Your task to perform on an android device: turn smart compose on in the gmail app Image 0: 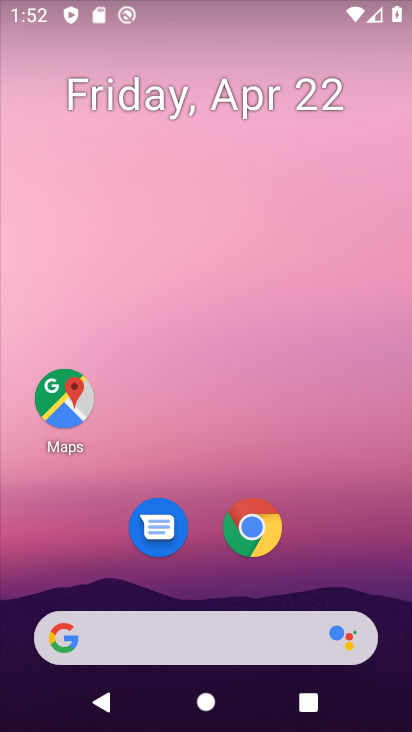
Step 0: drag from (338, 557) to (359, 107)
Your task to perform on an android device: turn smart compose on in the gmail app Image 1: 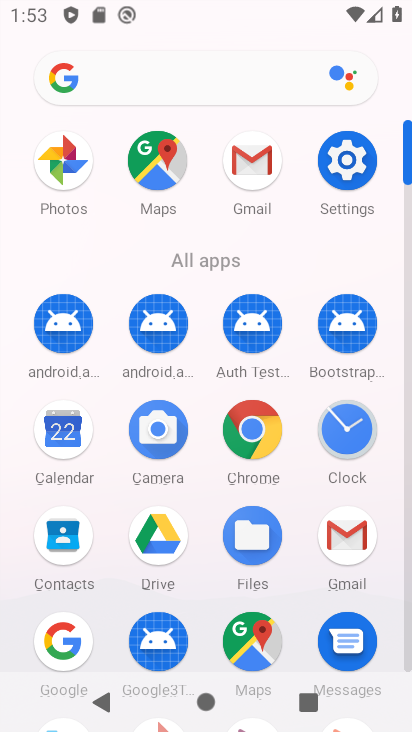
Step 1: drag from (304, 292) to (322, 23)
Your task to perform on an android device: turn smart compose on in the gmail app Image 2: 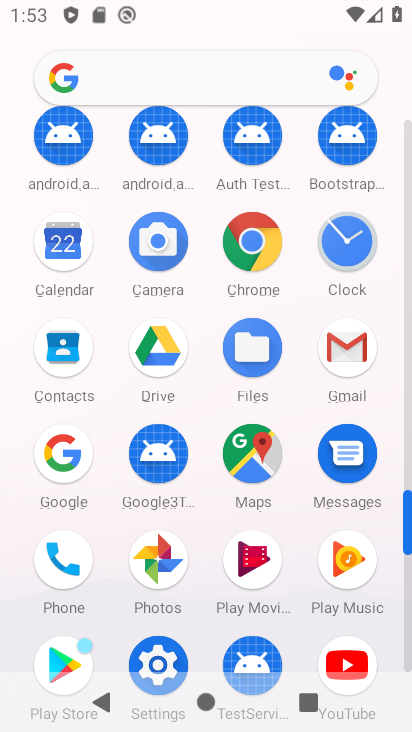
Step 2: click (353, 346)
Your task to perform on an android device: turn smart compose on in the gmail app Image 3: 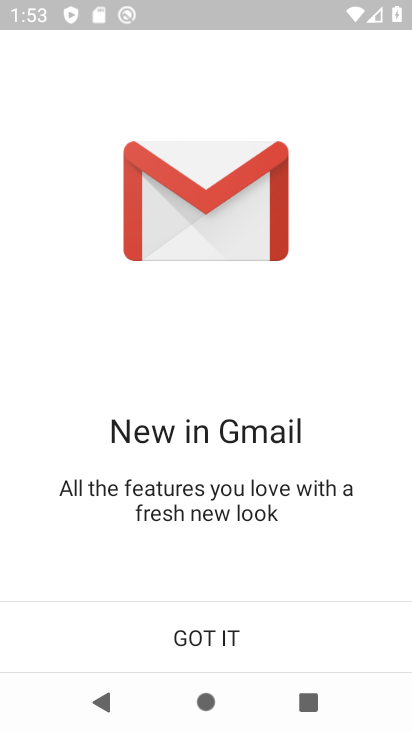
Step 3: click (200, 634)
Your task to perform on an android device: turn smart compose on in the gmail app Image 4: 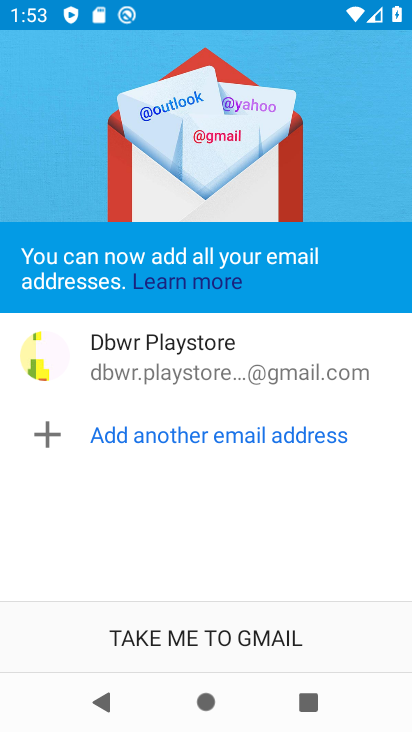
Step 4: click (219, 627)
Your task to perform on an android device: turn smart compose on in the gmail app Image 5: 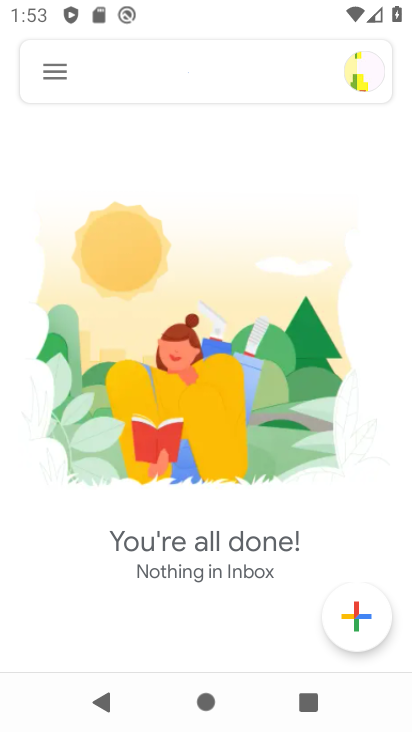
Step 5: click (43, 69)
Your task to perform on an android device: turn smart compose on in the gmail app Image 6: 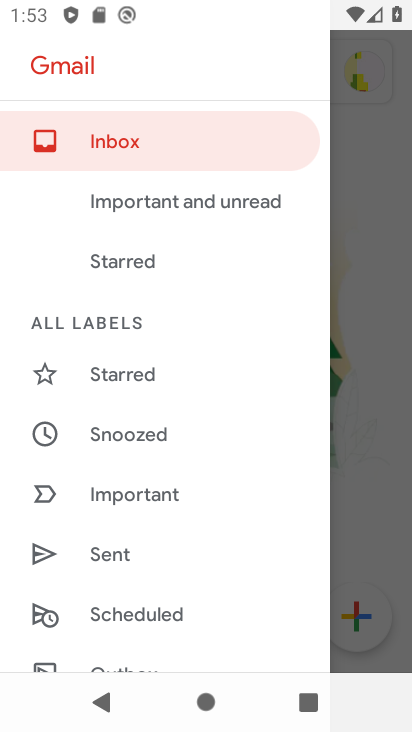
Step 6: drag from (273, 533) to (271, 58)
Your task to perform on an android device: turn smart compose on in the gmail app Image 7: 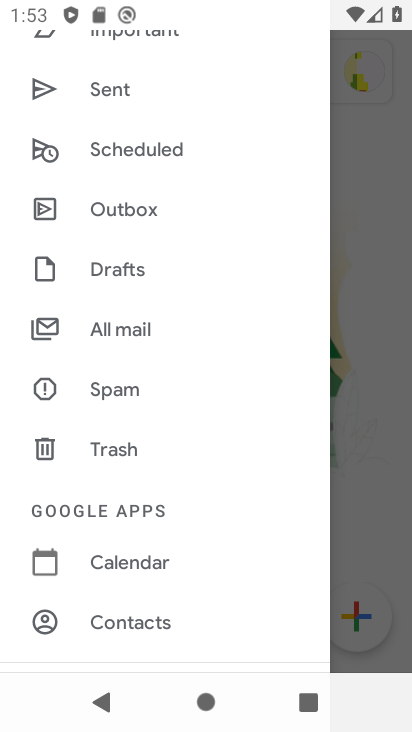
Step 7: drag from (199, 602) to (220, 157)
Your task to perform on an android device: turn smart compose on in the gmail app Image 8: 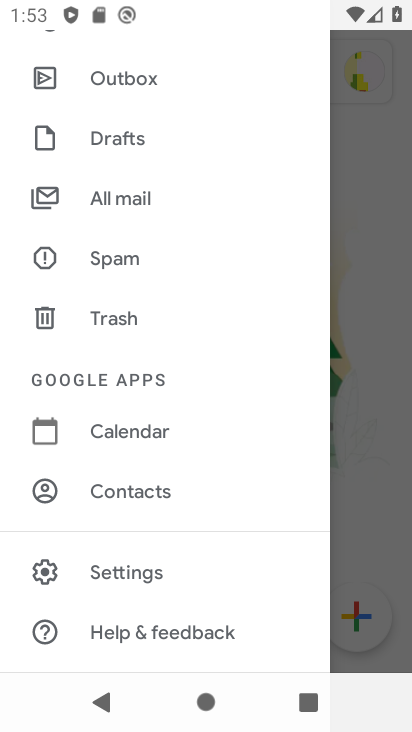
Step 8: click (128, 575)
Your task to perform on an android device: turn smart compose on in the gmail app Image 9: 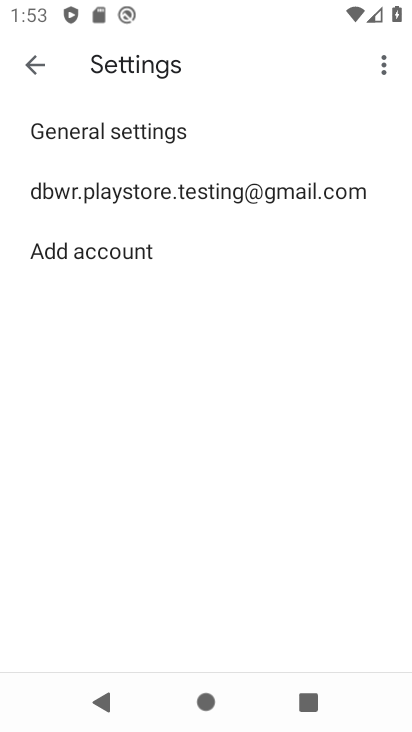
Step 9: click (324, 183)
Your task to perform on an android device: turn smart compose on in the gmail app Image 10: 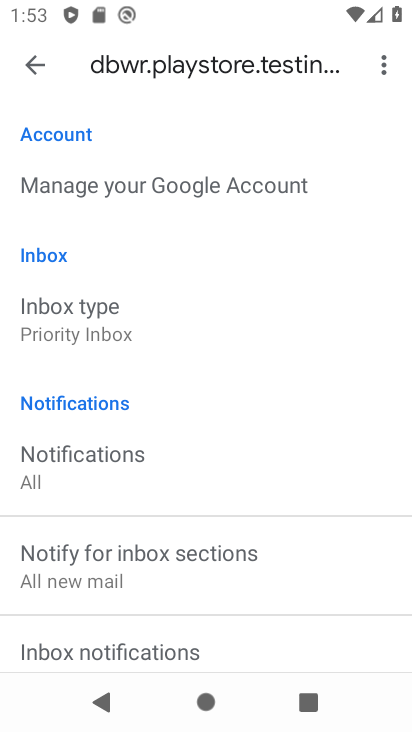
Step 10: task complete